Your task to perform on an android device: turn off location Image 0: 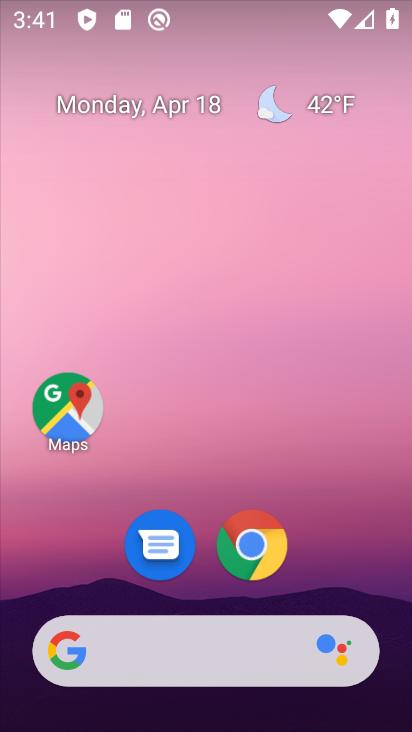
Step 0: drag from (339, 546) to (343, 81)
Your task to perform on an android device: turn off location Image 1: 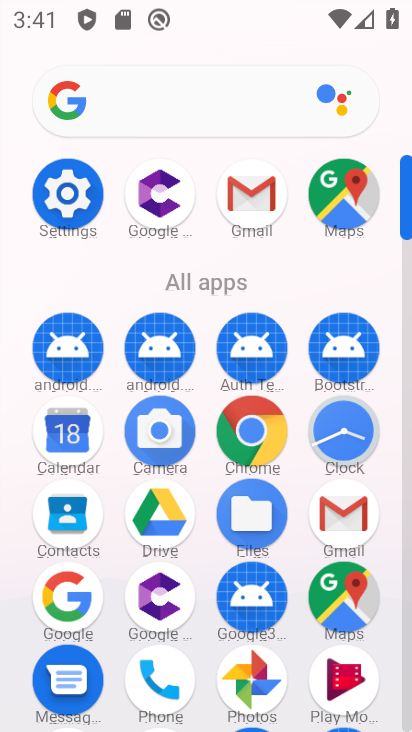
Step 1: drag from (200, 548) to (201, 263)
Your task to perform on an android device: turn off location Image 2: 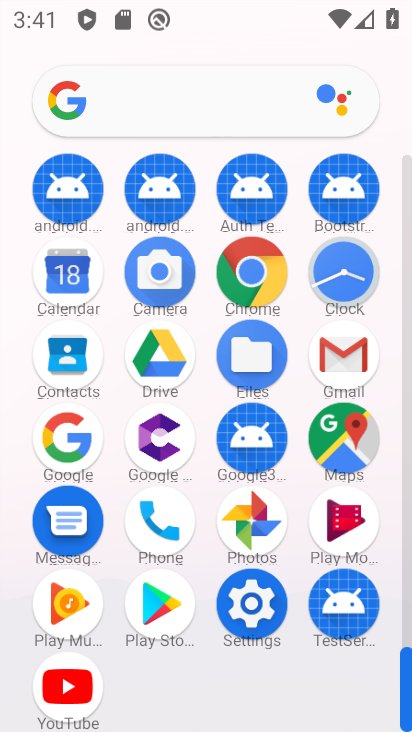
Step 2: click (244, 621)
Your task to perform on an android device: turn off location Image 3: 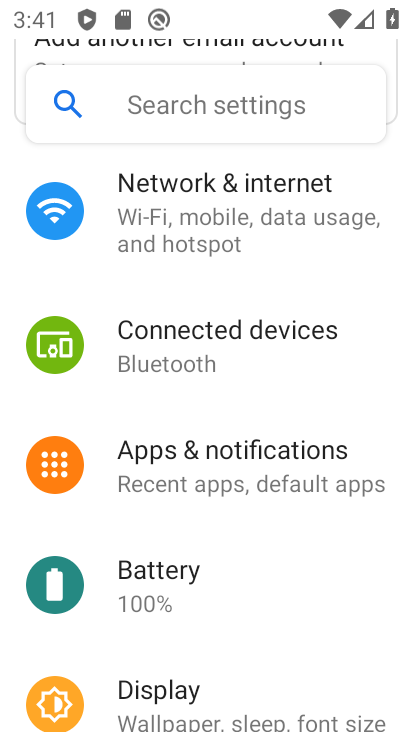
Step 3: drag from (337, 610) to (360, 396)
Your task to perform on an android device: turn off location Image 4: 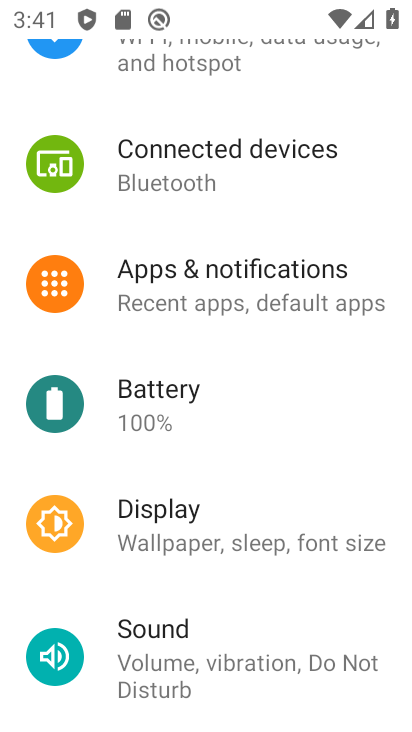
Step 4: drag from (330, 587) to (343, 340)
Your task to perform on an android device: turn off location Image 5: 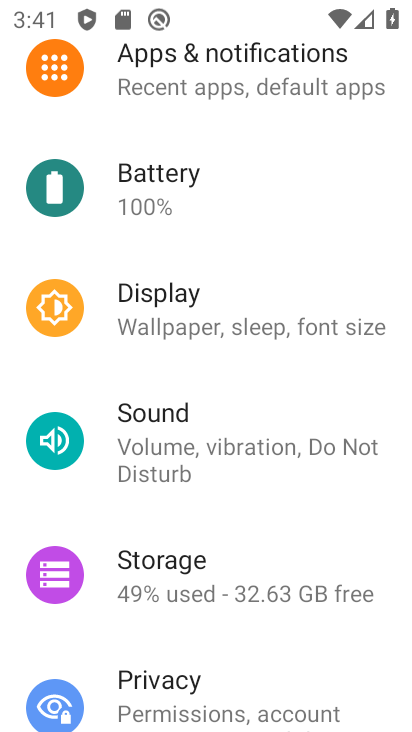
Step 5: drag from (361, 645) to (369, 368)
Your task to perform on an android device: turn off location Image 6: 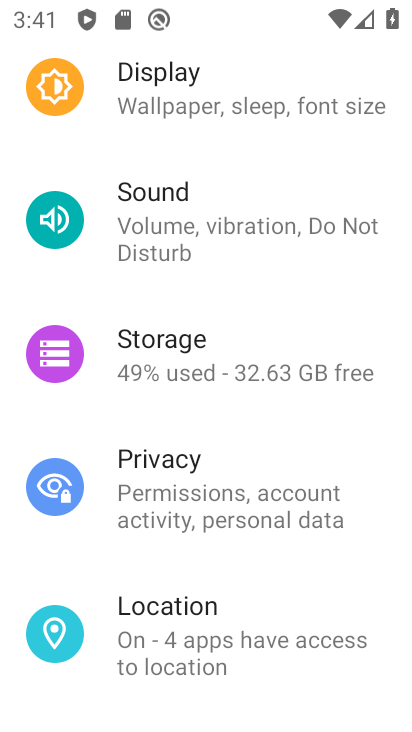
Step 6: drag from (352, 563) to (365, 309)
Your task to perform on an android device: turn off location Image 7: 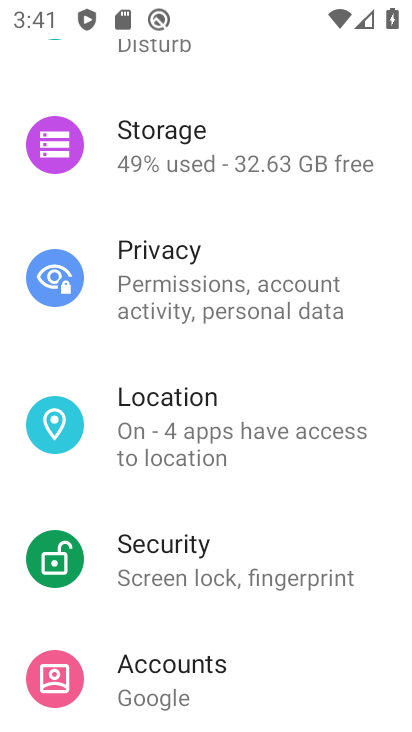
Step 7: click (193, 411)
Your task to perform on an android device: turn off location Image 8: 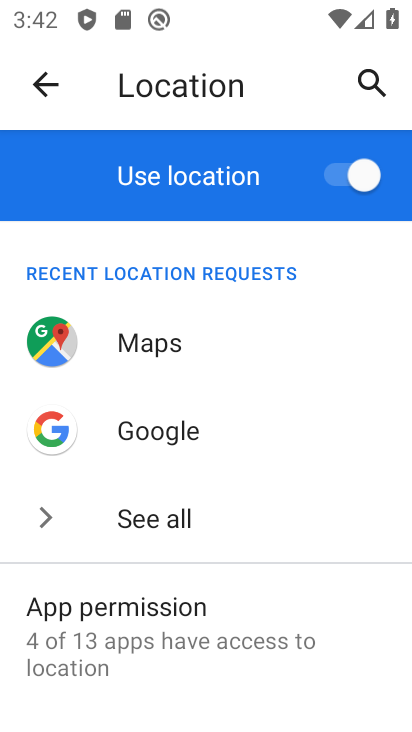
Step 8: drag from (315, 588) to (341, 322)
Your task to perform on an android device: turn off location Image 9: 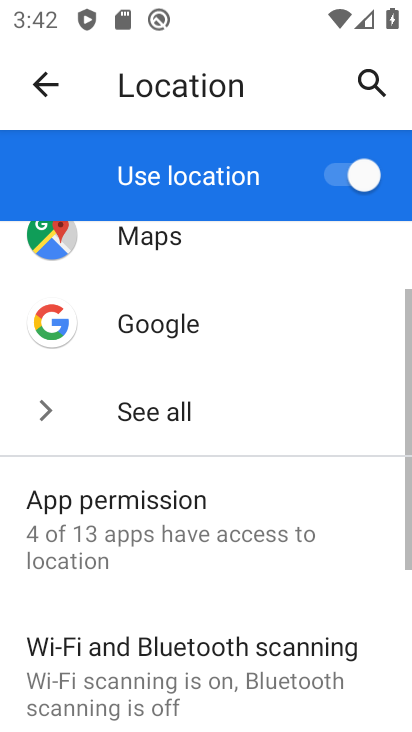
Step 9: click (356, 178)
Your task to perform on an android device: turn off location Image 10: 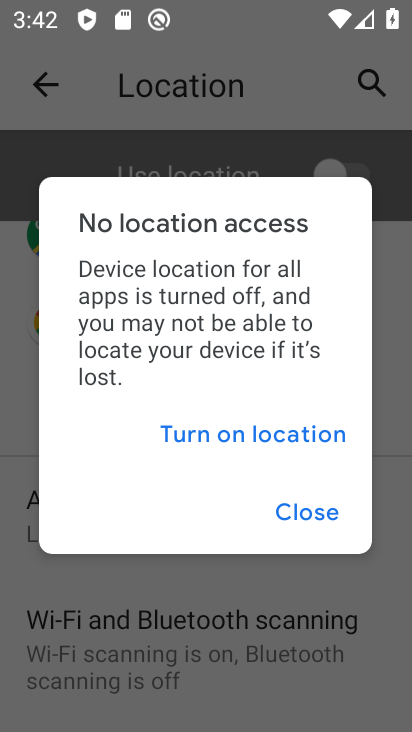
Step 10: task complete